Your task to perform on an android device: Check the news Image 0: 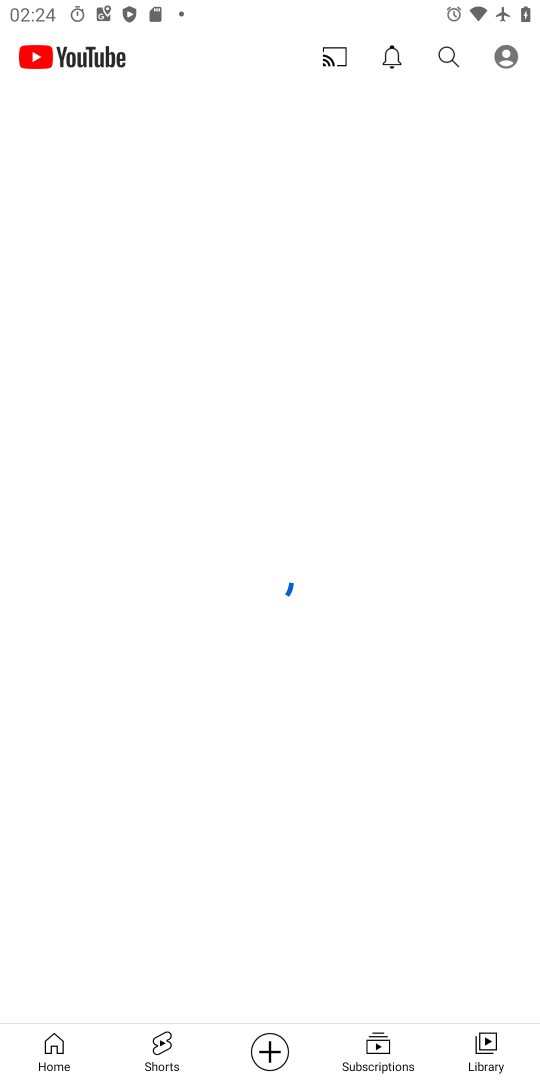
Step 0: press home button
Your task to perform on an android device: Check the news Image 1: 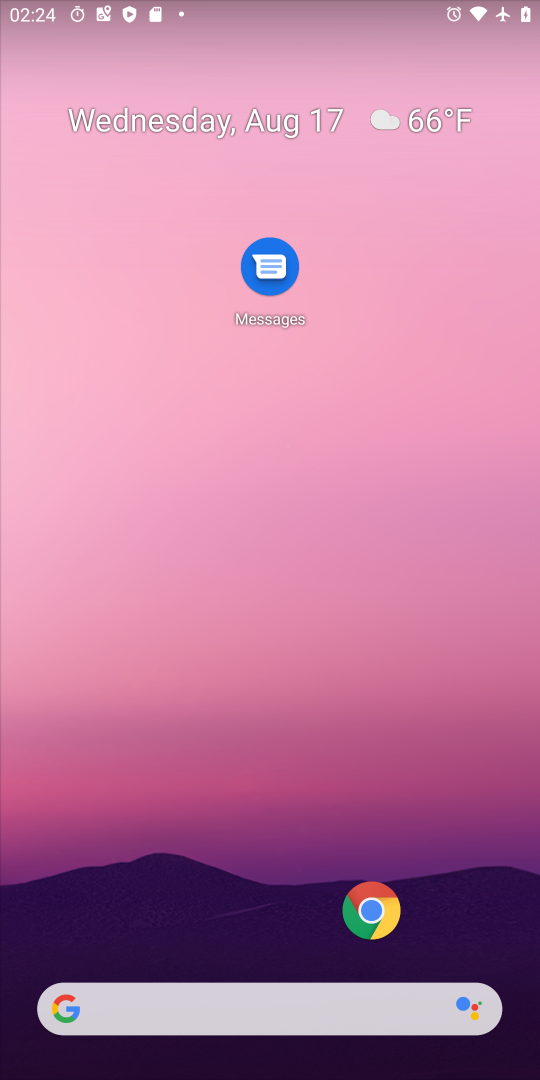
Step 1: drag from (149, 701) to (229, 70)
Your task to perform on an android device: Check the news Image 2: 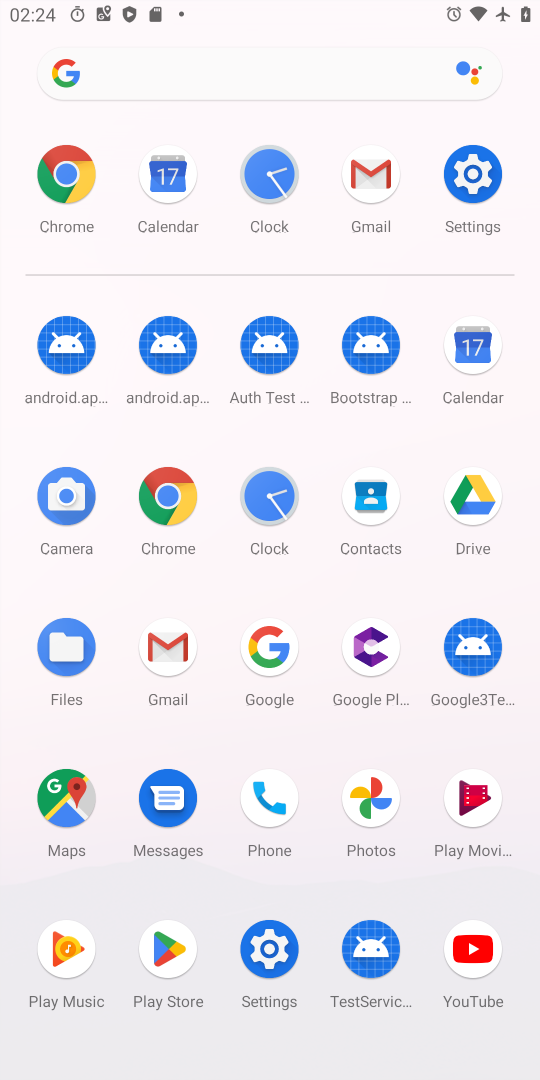
Step 2: click (165, 494)
Your task to perform on an android device: Check the news Image 3: 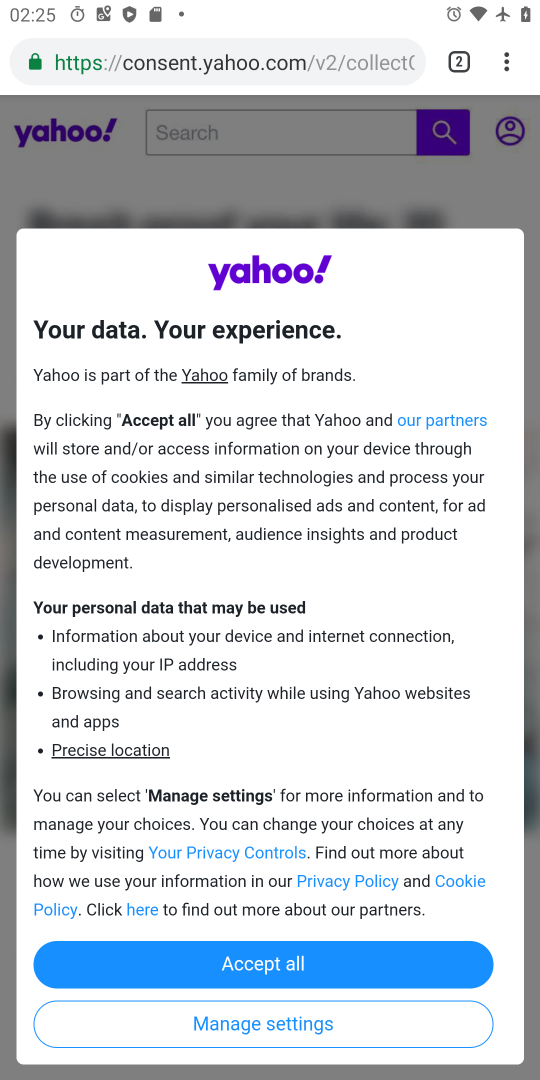
Step 3: click (263, 48)
Your task to perform on an android device: Check the news Image 4: 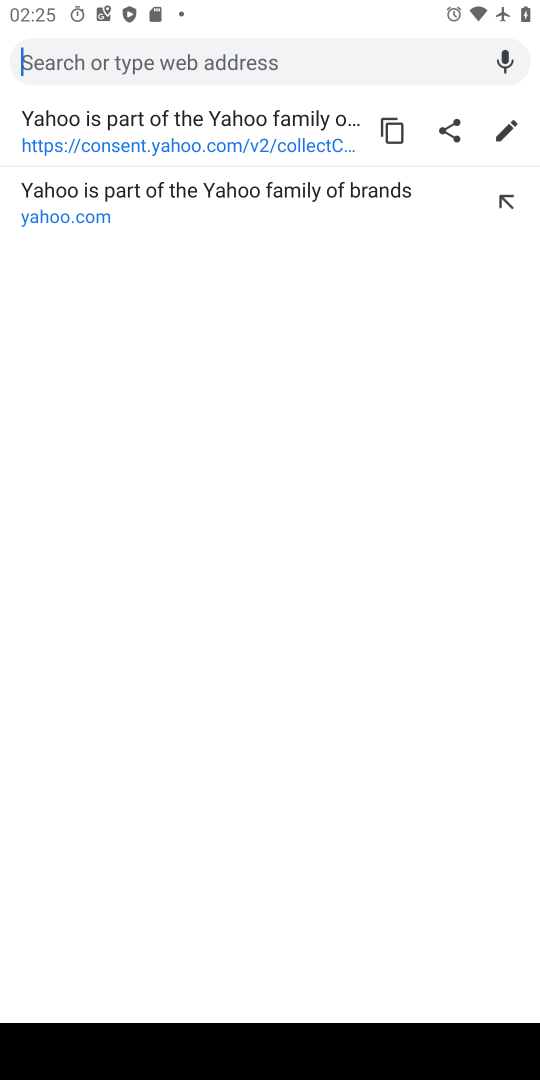
Step 4: type "news"
Your task to perform on an android device: Check the news Image 5: 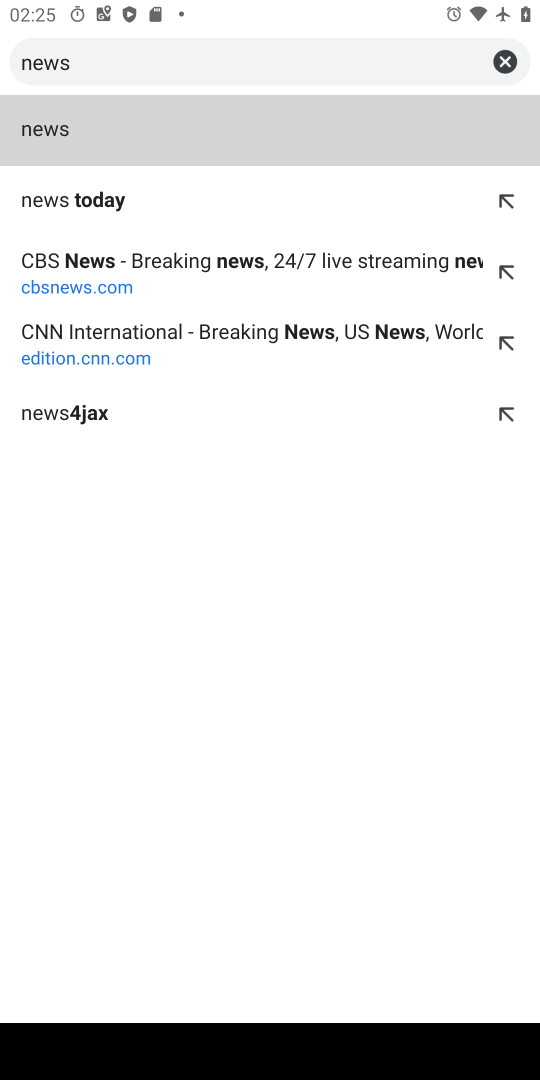
Step 5: click (71, 136)
Your task to perform on an android device: Check the news Image 6: 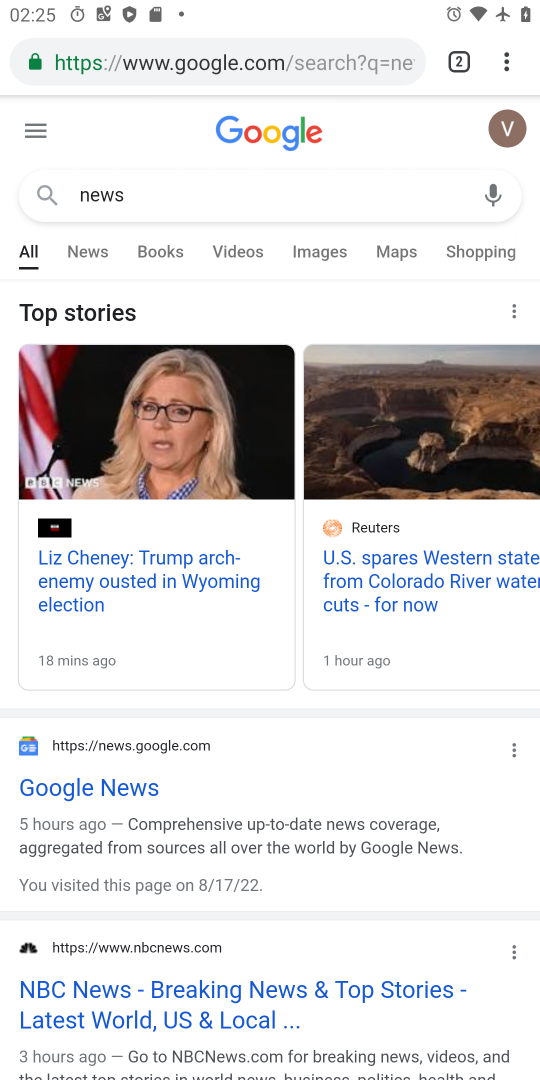
Step 6: click (113, 784)
Your task to perform on an android device: Check the news Image 7: 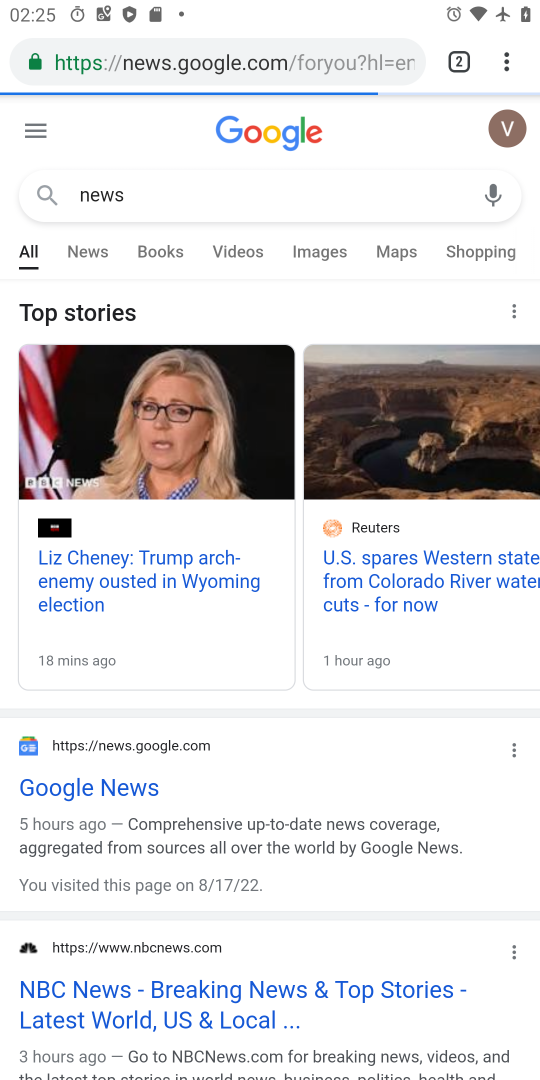
Step 7: click (116, 773)
Your task to perform on an android device: Check the news Image 8: 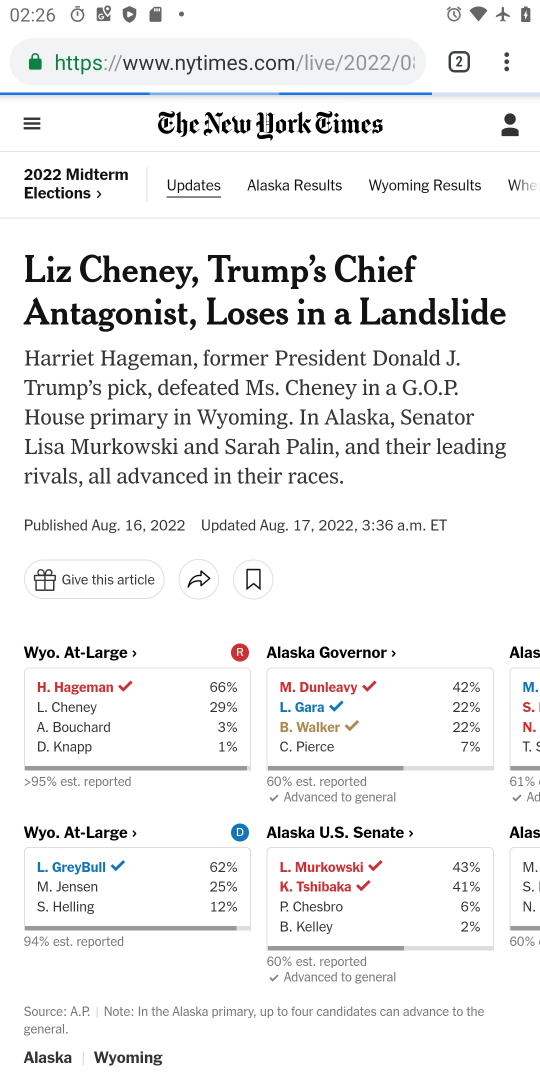
Step 8: task complete